Your task to perform on an android device: turn on the 12-hour format for clock Image 0: 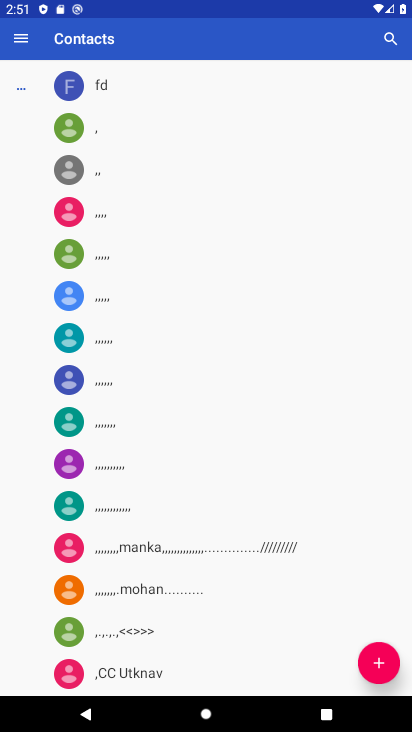
Step 0: press home button
Your task to perform on an android device: turn on the 12-hour format for clock Image 1: 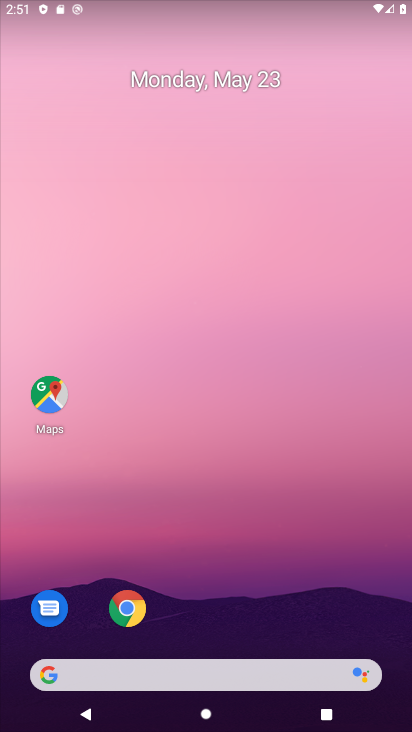
Step 1: drag from (394, 604) to (368, 93)
Your task to perform on an android device: turn on the 12-hour format for clock Image 2: 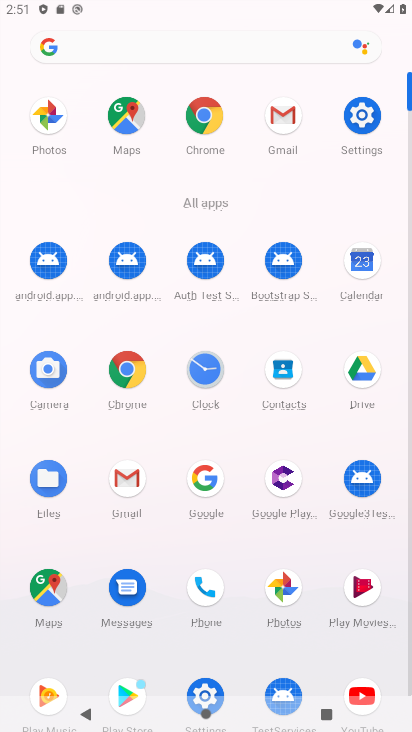
Step 2: click (209, 375)
Your task to perform on an android device: turn on the 12-hour format for clock Image 3: 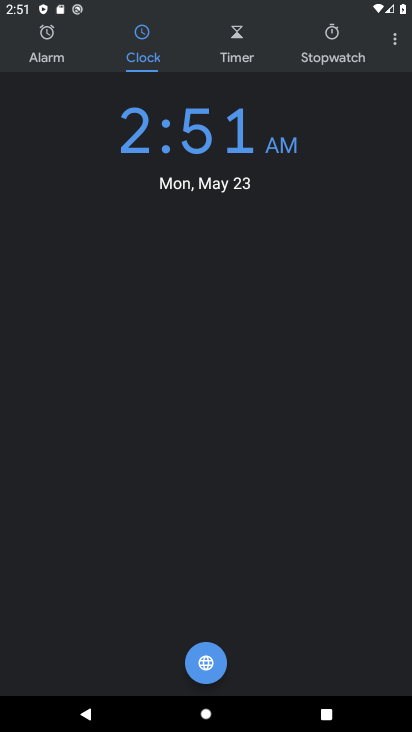
Step 3: click (397, 33)
Your task to perform on an android device: turn on the 12-hour format for clock Image 4: 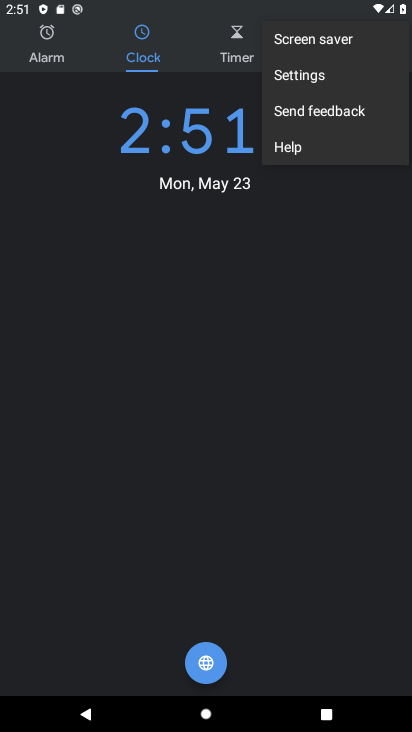
Step 4: click (305, 83)
Your task to perform on an android device: turn on the 12-hour format for clock Image 5: 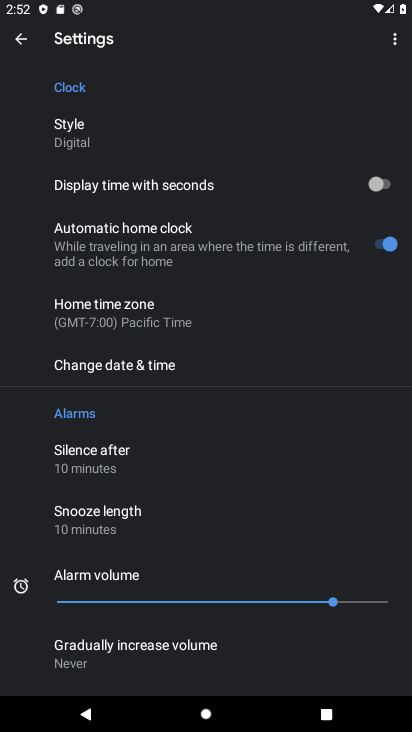
Step 5: click (135, 356)
Your task to perform on an android device: turn on the 12-hour format for clock Image 6: 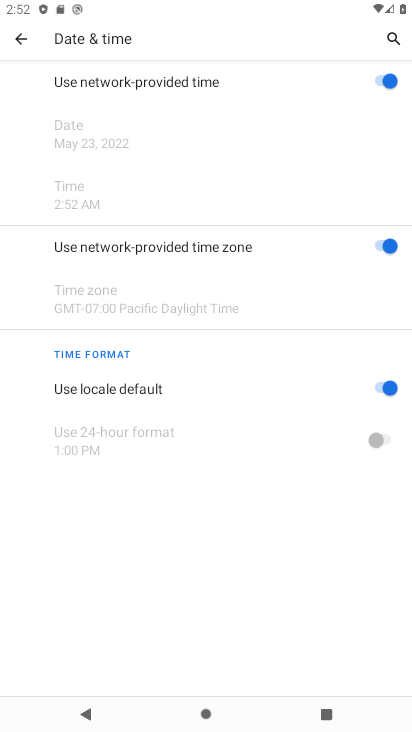
Step 6: task complete